Your task to perform on an android device: turn off location Image 0: 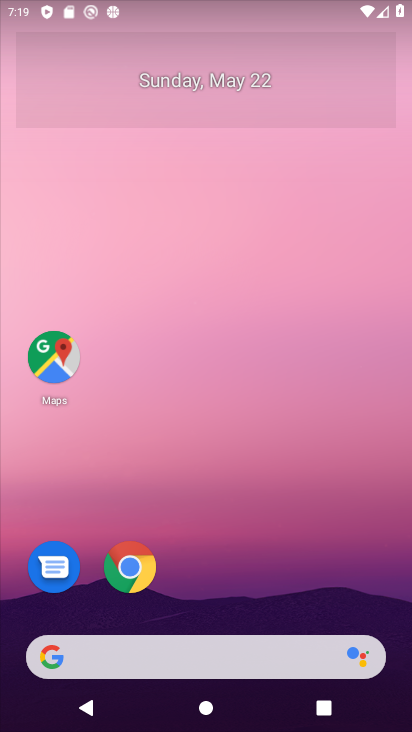
Step 0: drag from (286, 433) to (313, 149)
Your task to perform on an android device: turn off location Image 1: 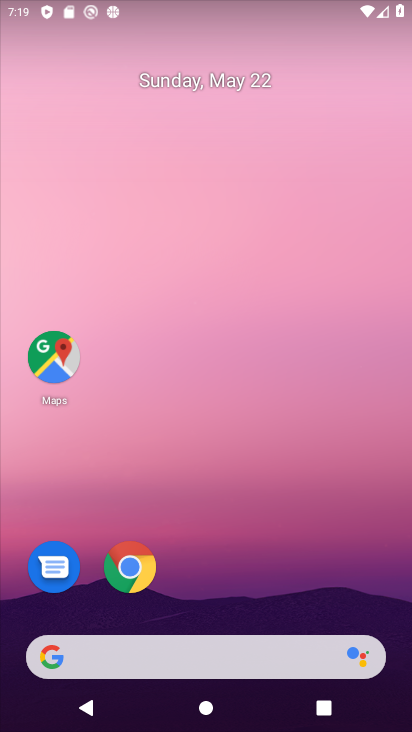
Step 1: drag from (158, 499) to (203, 123)
Your task to perform on an android device: turn off location Image 2: 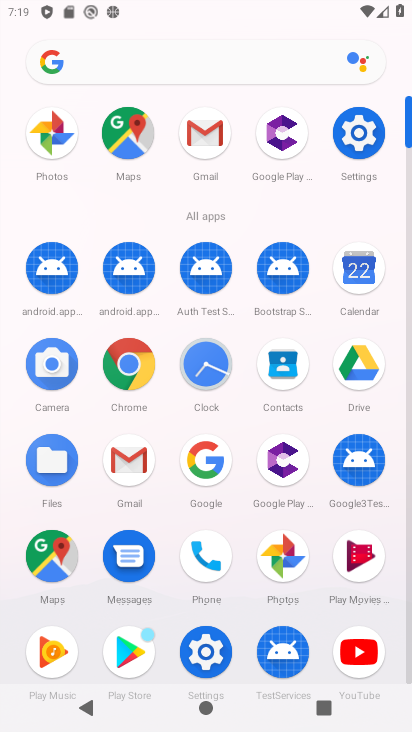
Step 2: click (353, 128)
Your task to perform on an android device: turn off location Image 3: 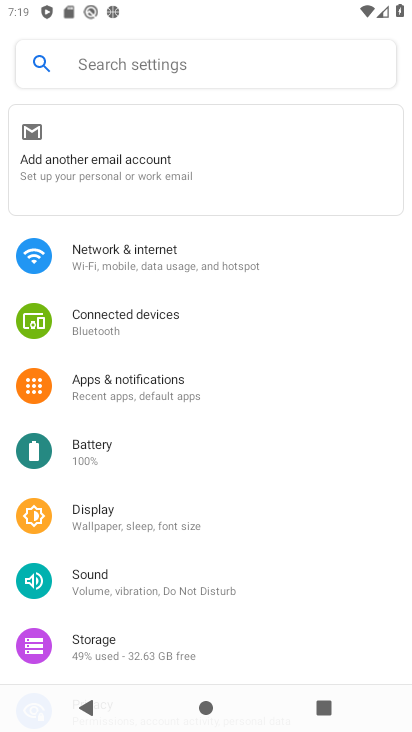
Step 3: drag from (153, 592) to (253, 123)
Your task to perform on an android device: turn off location Image 4: 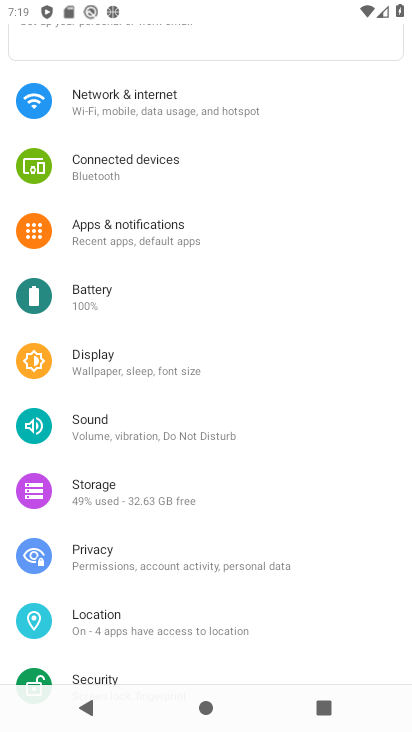
Step 4: click (109, 623)
Your task to perform on an android device: turn off location Image 5: 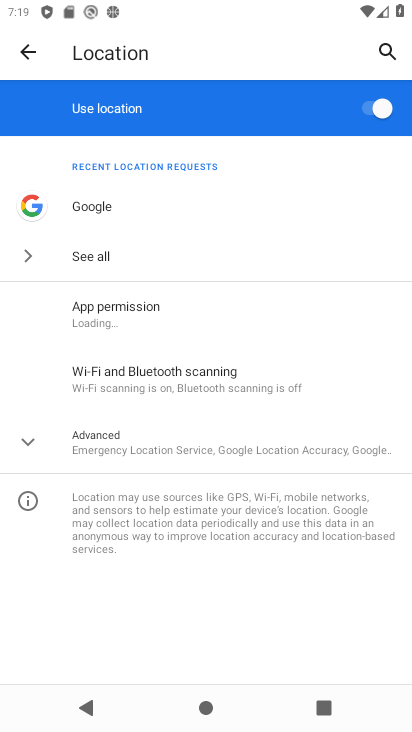
Step 5: click (372, 109)
Your task to perform on an android device: turn off location Image 6: 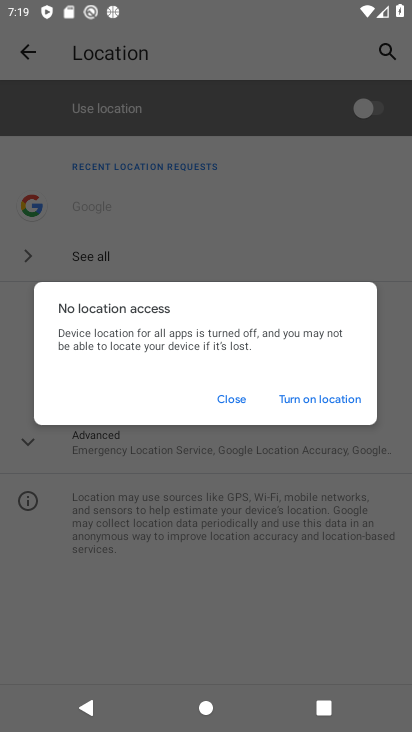
Step 6: task complete